Your task to perform on an android device: Go to sound settings Image 0: 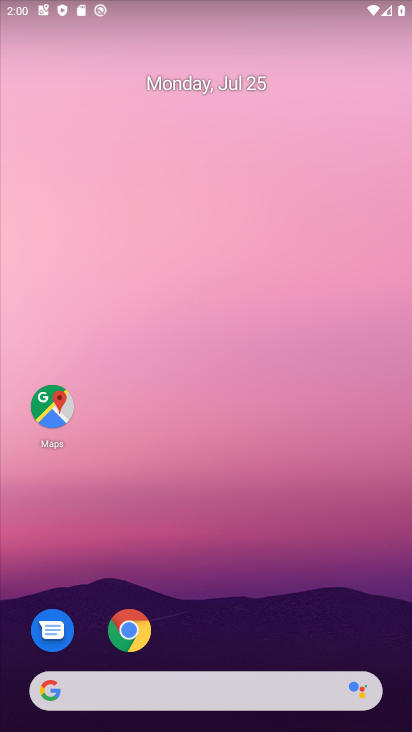
Step 0: drag from (248, 648) to (248, 33)
Your task to perform on an android device: Go to sound settings Image 1: 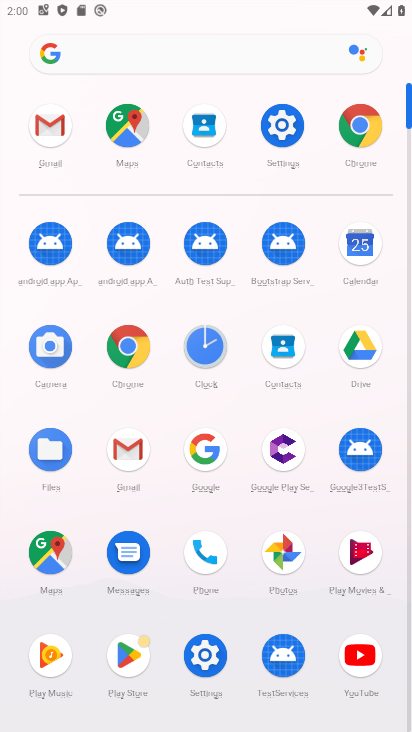
Step 1: click (281, 130)
Your task to perform on an android device: Go to sound settings Image 2: 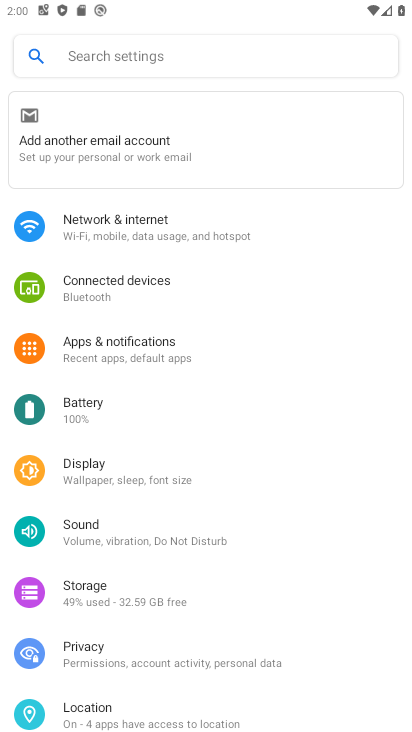
Step 2: click (143, 578)
Your task to perform on an android device: Go to sound settings Image 3: 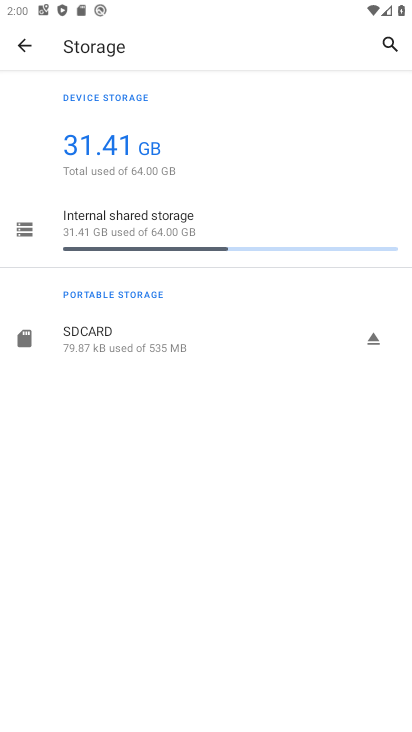
Step 3: task complete